Your task to perform on an android device: toggle airplane mode Image 0: 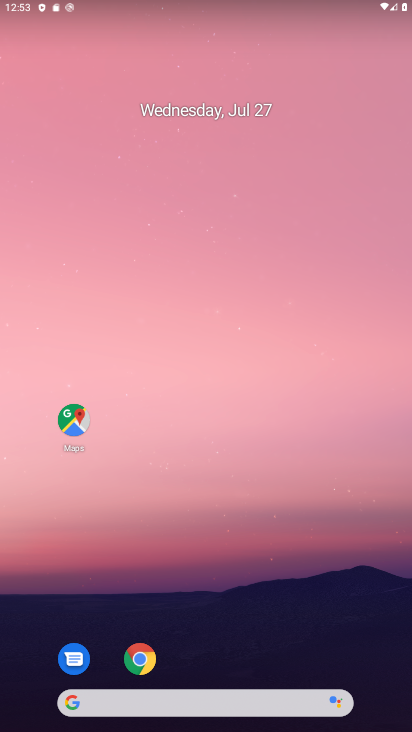
Step 0: press home button
Your task to perform on an android device: toggle airplane mode Image 1: 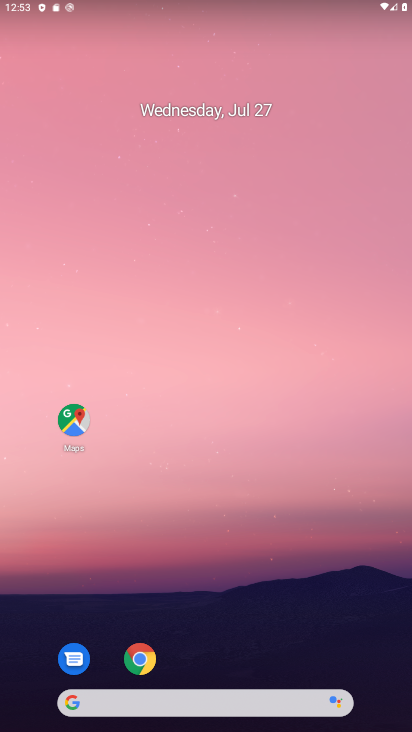
Step 1: press home button
Your task to perform on an android device: toggle airplane mode Image 2: 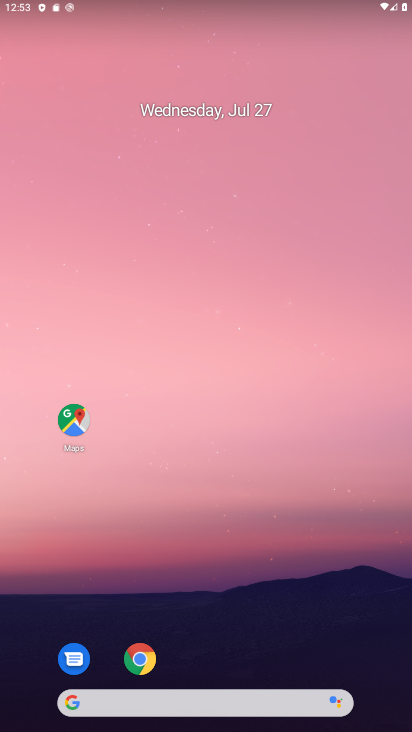
Step 2: press home button
Your task to perform on an android device: toggle airplane mode Image 3: 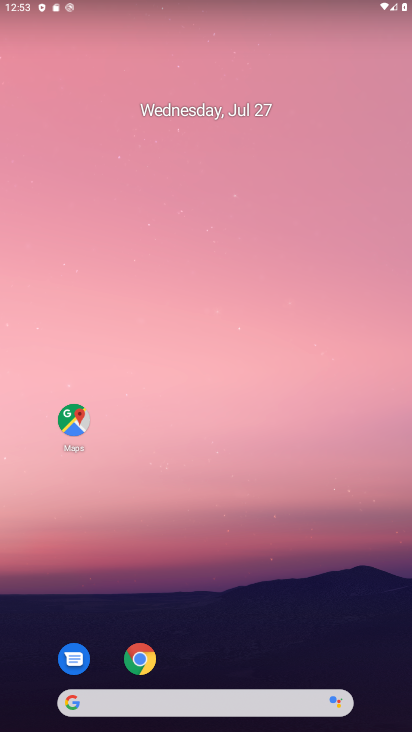
Step 3: drag from (388, 3) to (389, 660)
Your task to perform on an android device: toggle airplane mode Image 4: 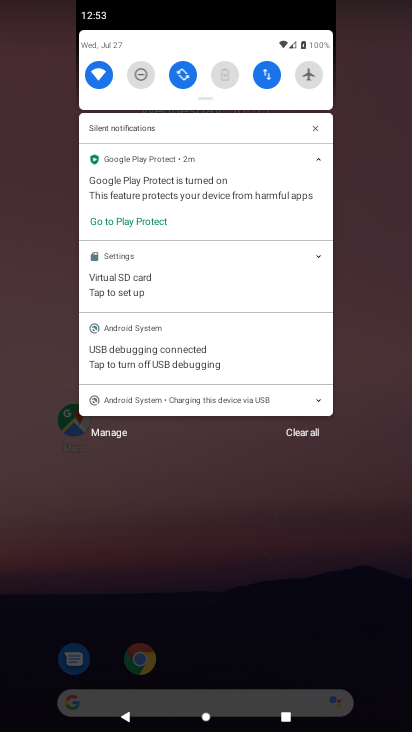
Step 4: click (302, 74)
Your task to perform on an android device: toggle airplane mode Image 5: 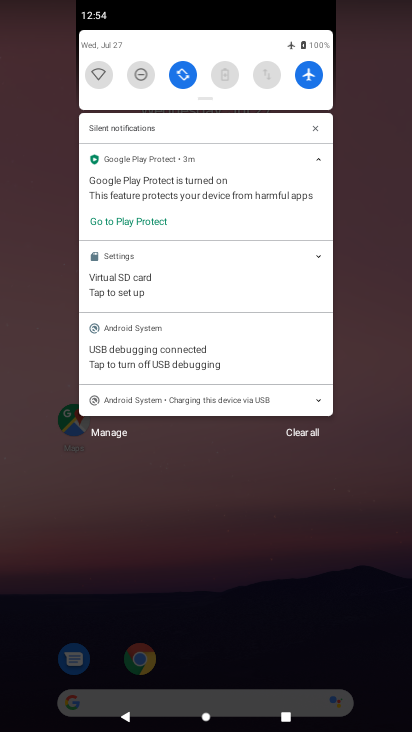
Step 5: task complete